Your task to perform on an android device: open chrome privacy settings Image 0: 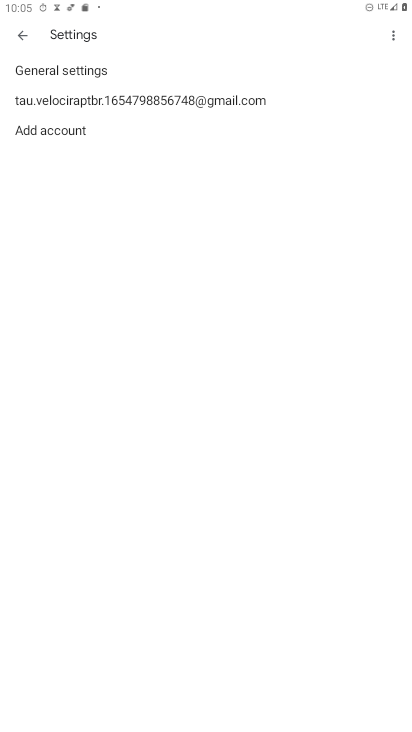
Step 0: press home button
Your task to perform on an android device: open chrome privacy settings Image 1: 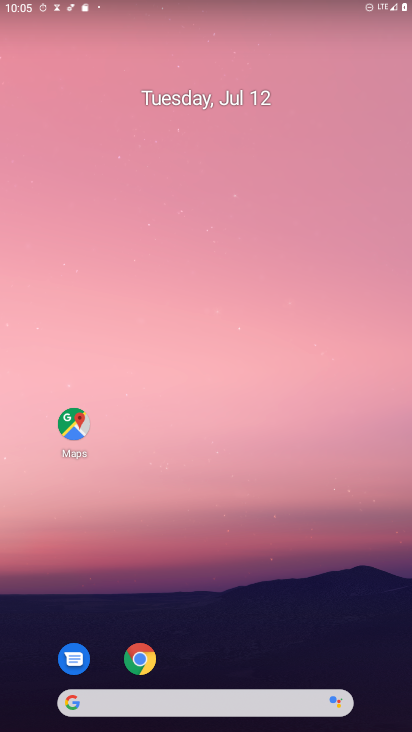
Step 1: click (142, 661)
Your task to perform on an android device: open chrome privacy settings Image 2: 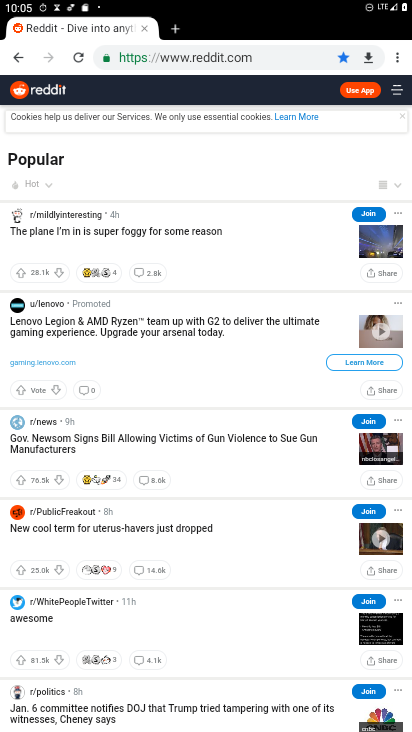
Step 2: click (399, 56)
Your task to perform on an android device: open chrome privacy settings Image 3: 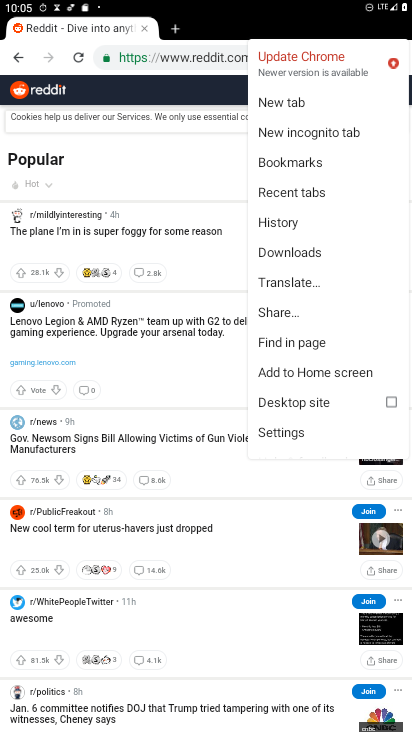
Step 3: click (291, 430)
Your task to perform on an android device: open chrome privacy settings Image 4: 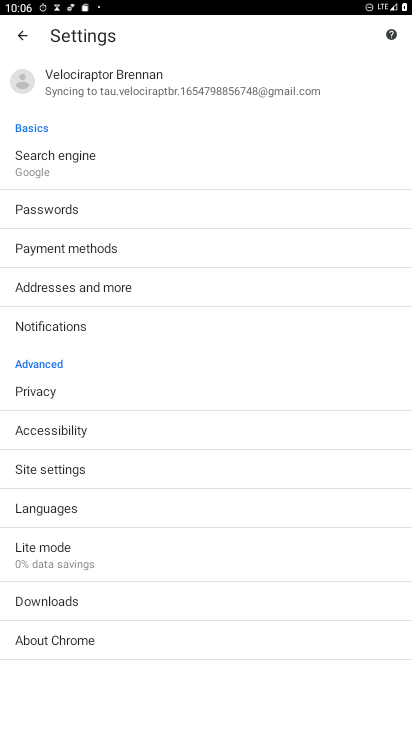
Step 4: click (52, 387)
Your task to perform on an android device: open chrome privacy settings Image 5: 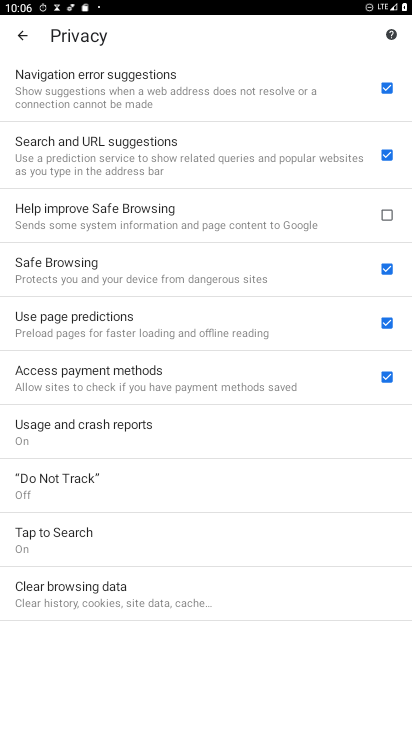
Step 5: task complete